Your task to perform on an android device: Open the phone app and click the voicemail tab. Image 0: 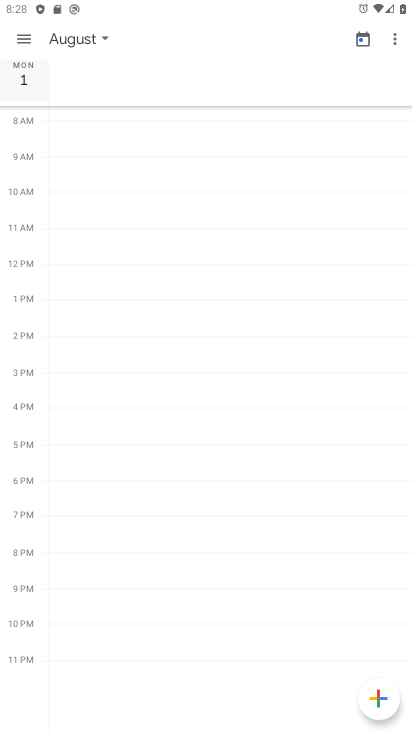
Step 0: press home button
Your task to perform on an android device: Open the phone app and click the voicemail tab. Image 1: 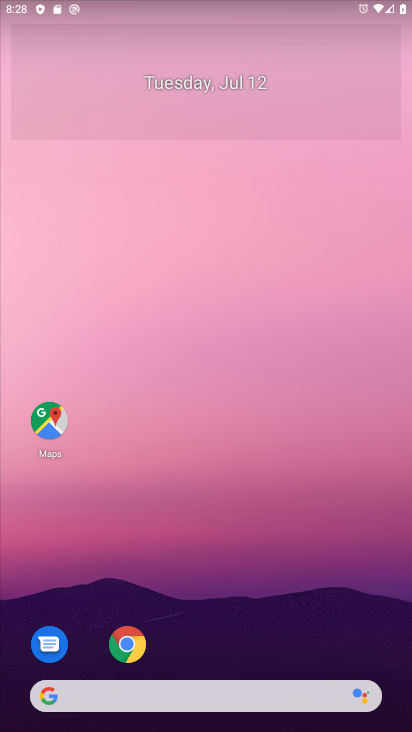
Step 1: drag from (44, 641) to (392, 61)
Your task to perform on an android device: Open the phone app and click the voicemail tab. Image 2: 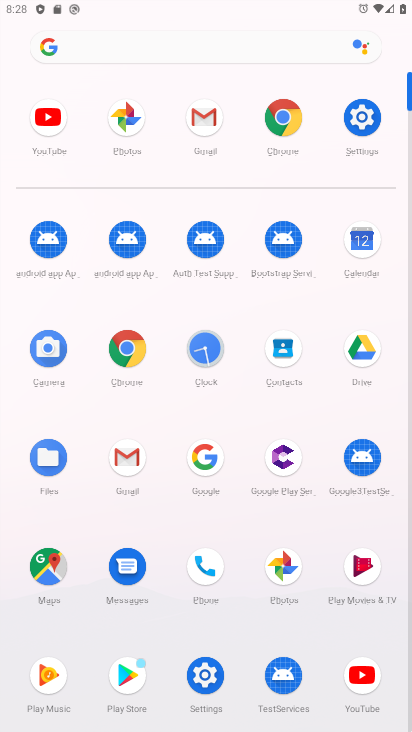
Step 2: click (208, 573)
Your task to perform on an android device: Open the phone app and click the voicemail tab. Image 3: 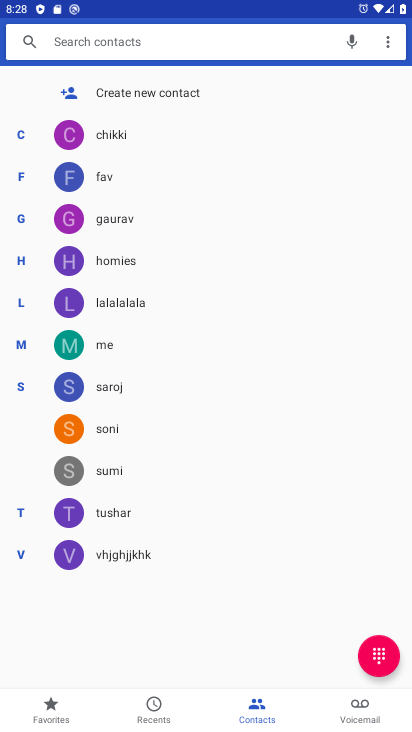
Step 3: click (348, 710)
Your task to perform on an android device: Open the phone app and click the voicemail tab. Image 4: 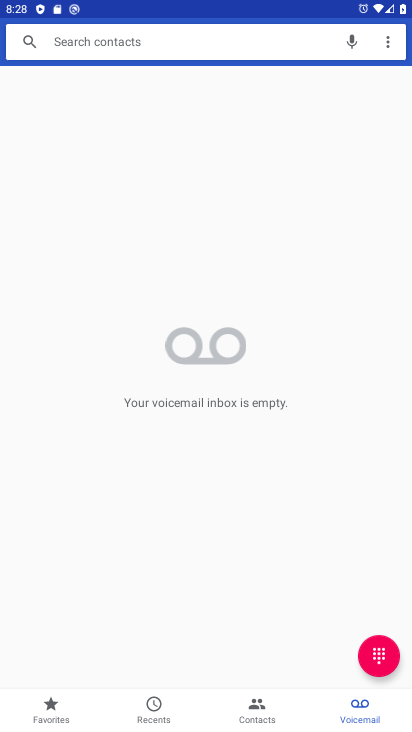
Step 4: task complete